Your task to perform on an android device: turn on wifi Image 0: 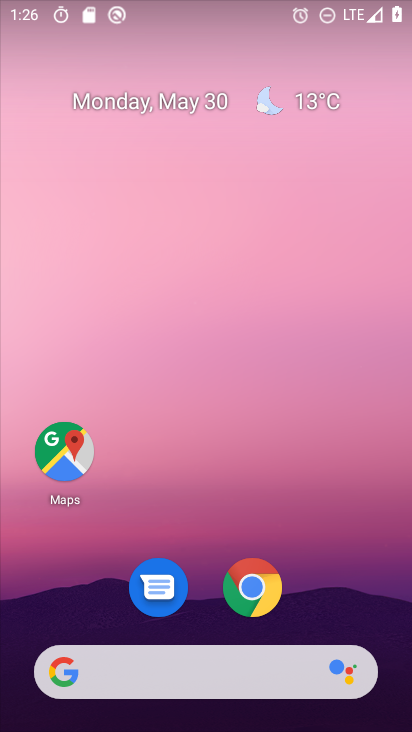
Step 0: click (293, 121)
Your task to perform on an android device: turn on wifi Image 1: 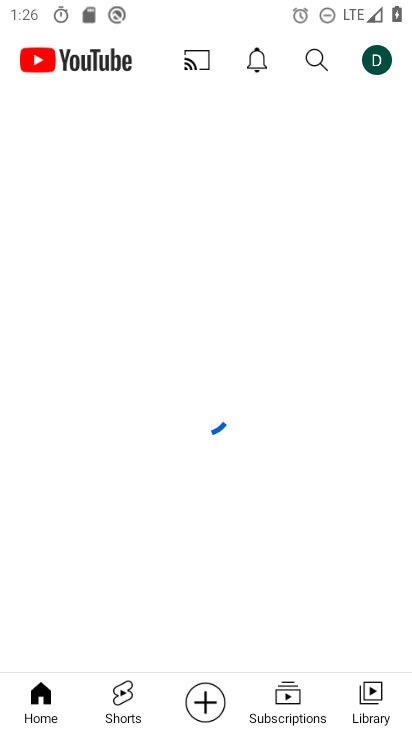
Step 1: press home button
Your task to perform on an android device: turn on wifi Image 2: 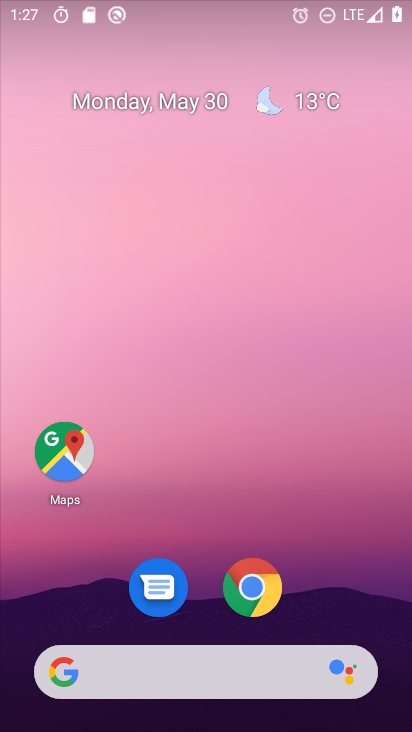
Step 2: drag from (334, 534) to (332, 184)
Your task to perform on an android device: turn on wifi Image 3: 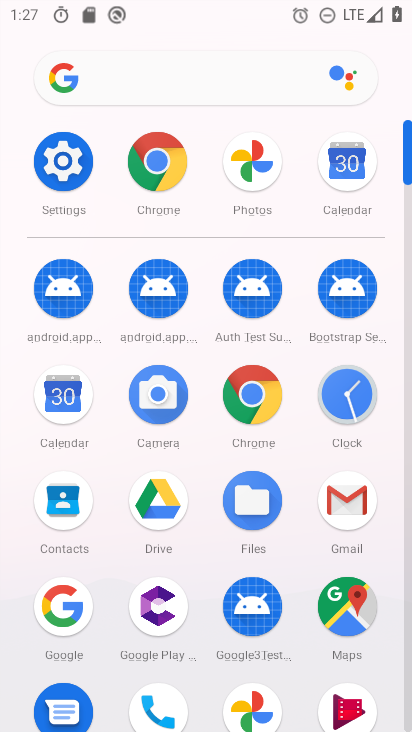
Step 3: click (82, 174)
Your task to perform on an android device: turn on wifi Image 4: 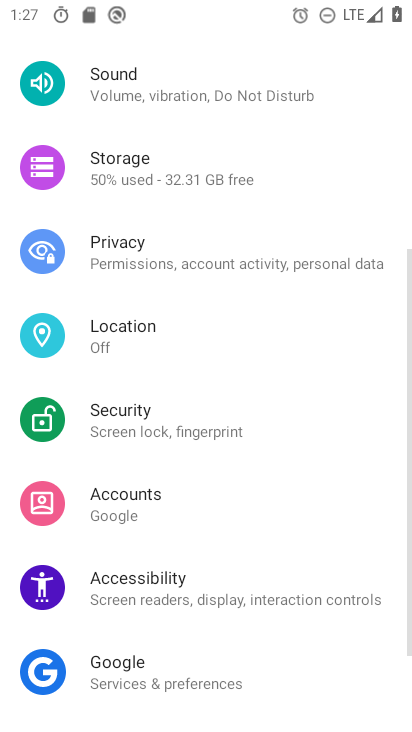
Step 4: drag from (190, 104) to (206, 514)
Your task to perform on an android device: turn on wifi Image 5: 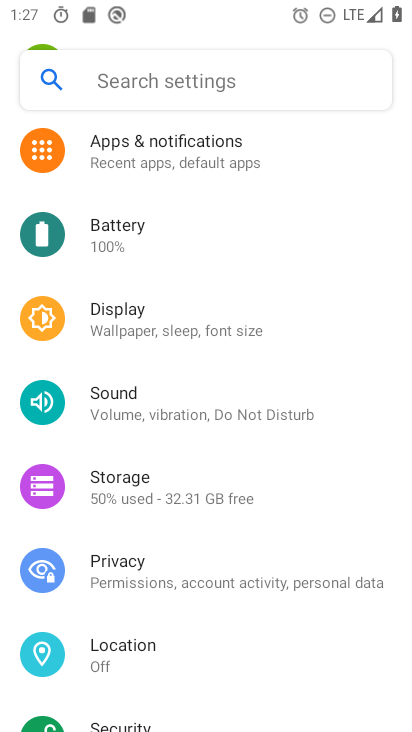
Step 5: drag from (154, 220) to (199, 615)
Your task to perform on an android device: turn on wifi Image 6: 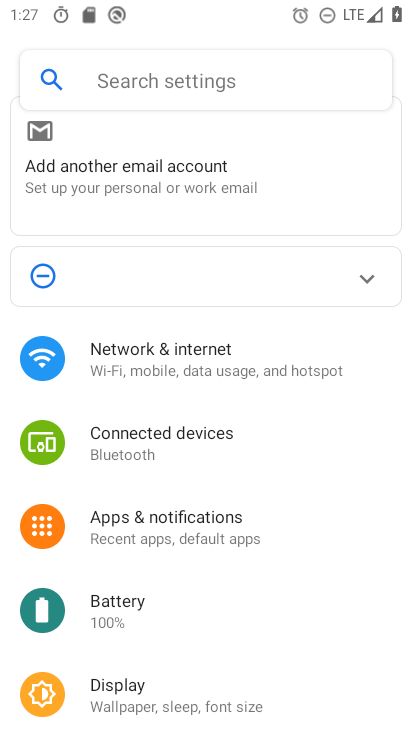
Step 6: click (158, 341)
Your task to perform on an android device: turn on wifi Image 7: 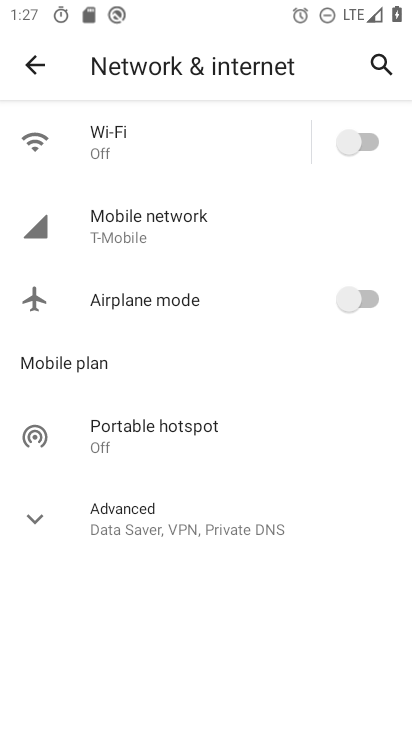
Step 7: click (363, 133)
Your task to perform on an android device: turn on wifi Image 8: 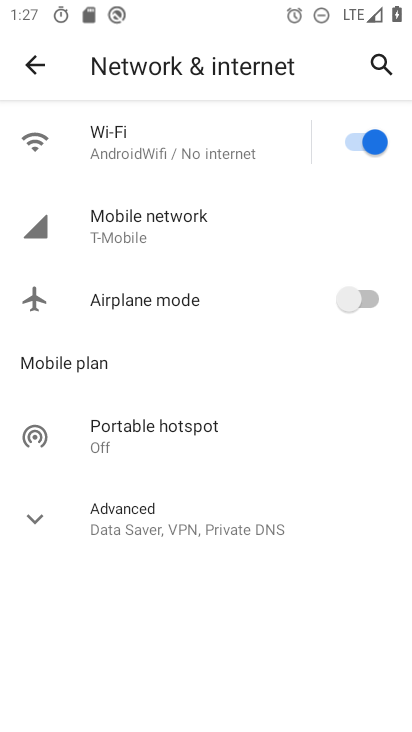
Step 8: task complete